Your task to perform on an android device: toggle wifi Image 0: 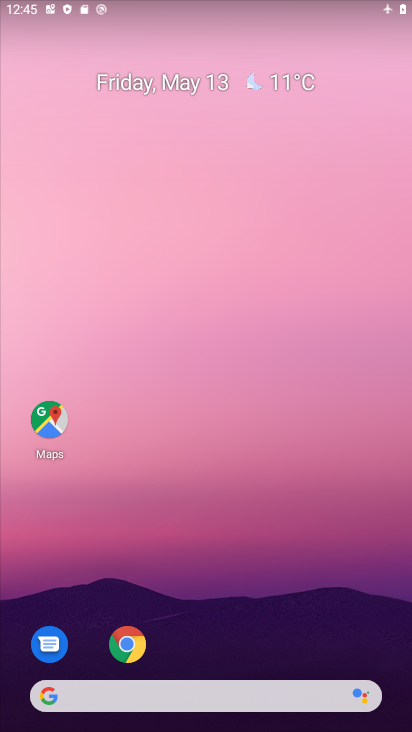
Step 0: drag from (194, 725) to (190, 182)
Your task to perform on an android device: toggle wifi Image 1: 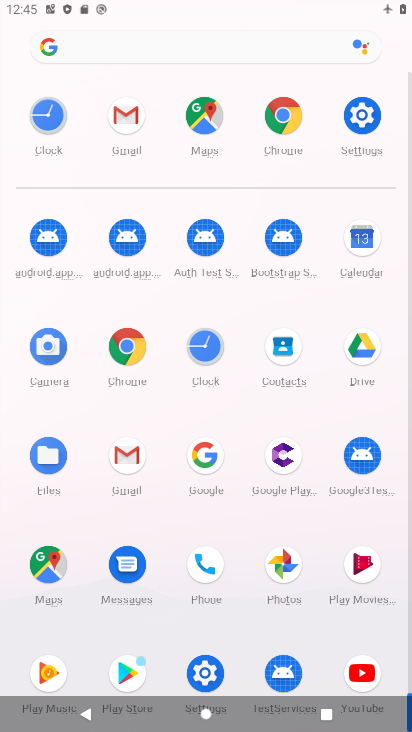
Step 1: click (363, 117)
Your task to perform on an android device: toggle wifi Image 2: 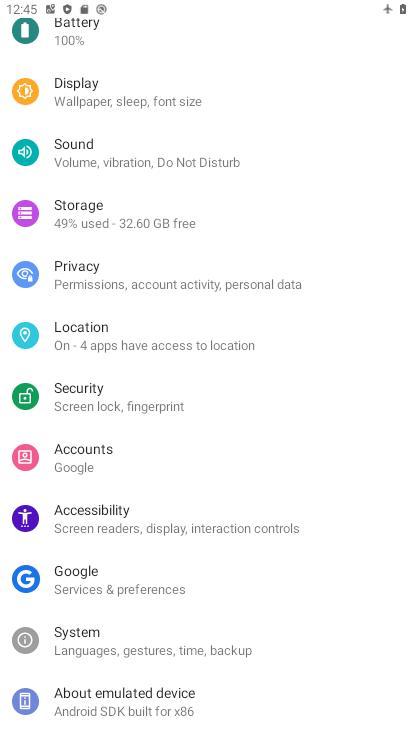
Step 2: drag from (180, 89) to (180, 458)
Your task to perform on an android device: toggle wifi Image 3: 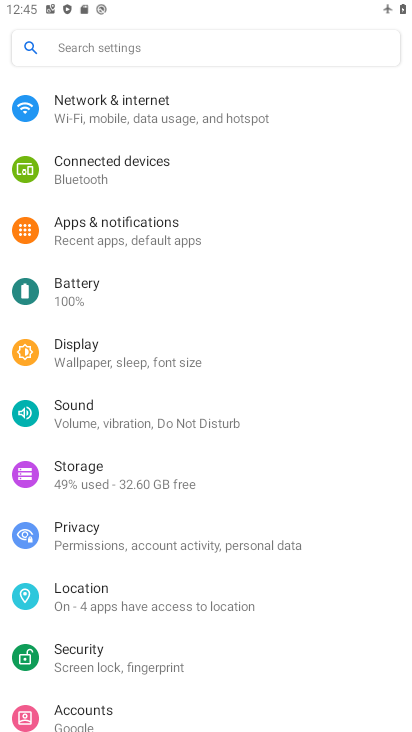
Step 3: click (112, 100)
Your task to perform on an android device: toggle wifi Image 4: 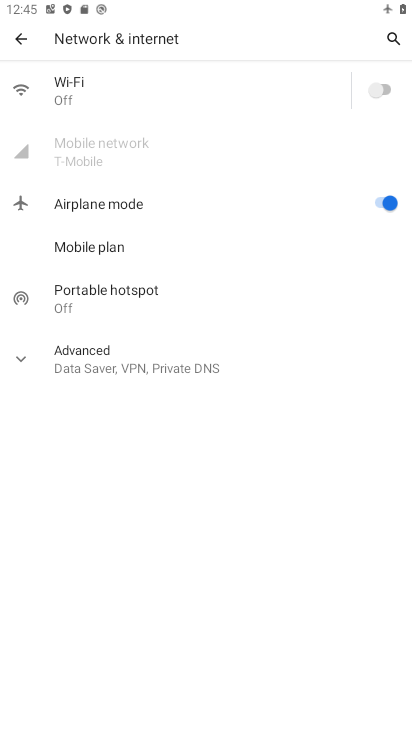
Step 4: click (388, 81)
Your task to perform on an android device: toggle wifi Image 5: 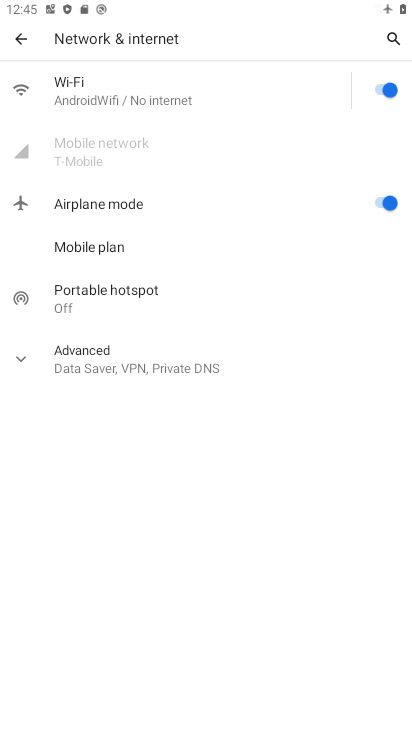
Step 5: task complete